Your task to perform on an android device: Open battery settings Image 0: 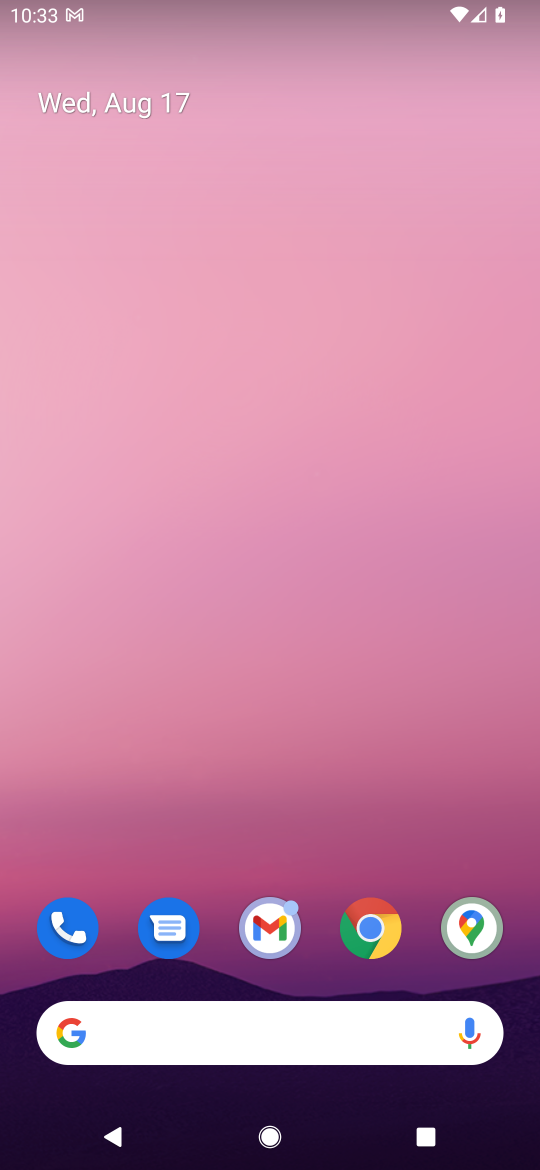
Step 0: click (314, 890)
Your task to perform on an android device: Open battery settings Image 1: 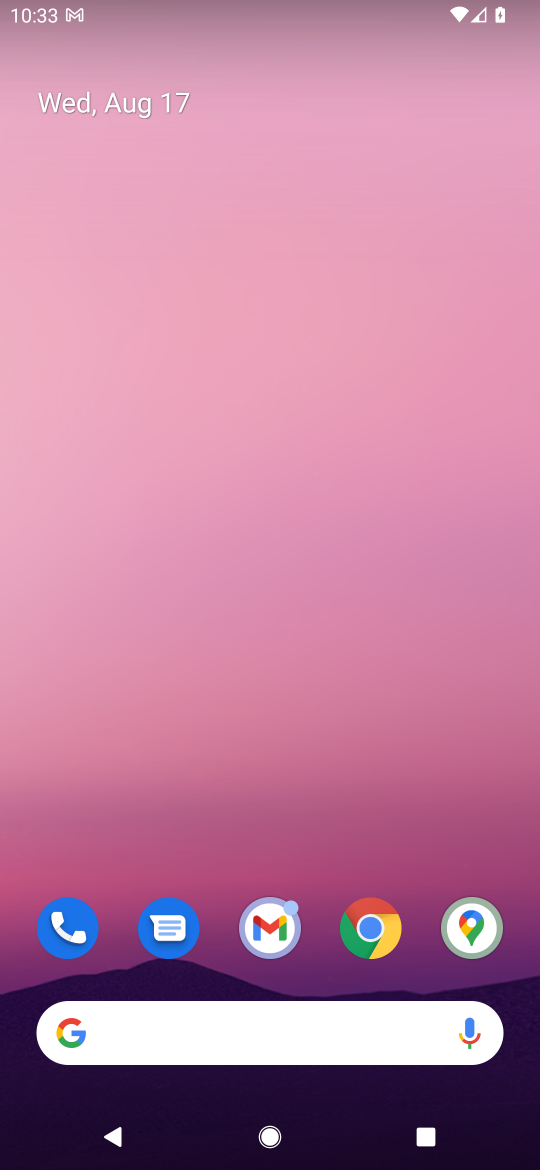
Step 1: drag from (305, 870) to (321, 337)
Your task to perform on an android device: Open battery settings Image 2: 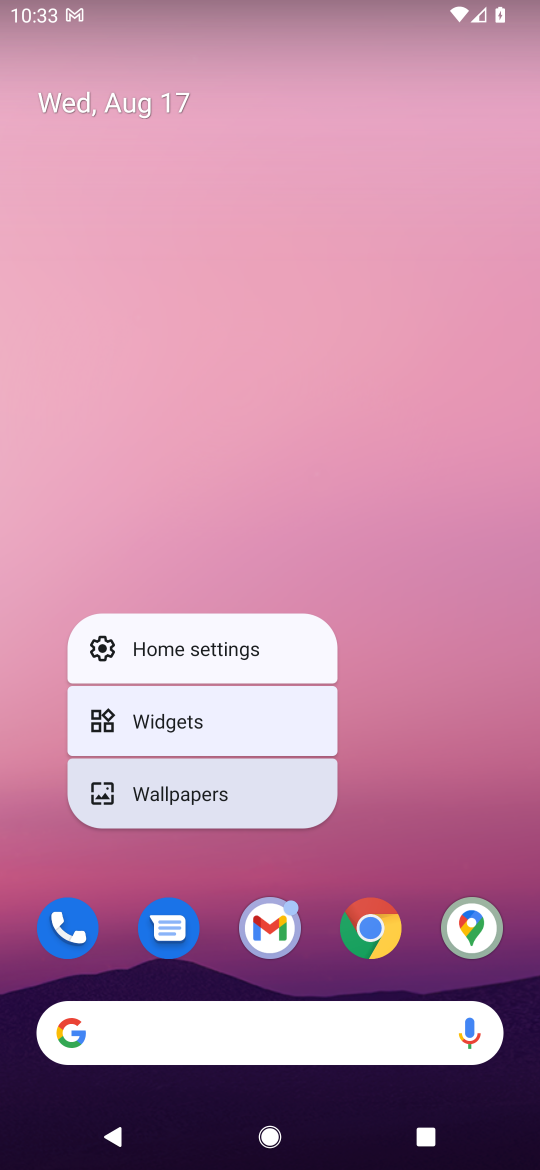
Step 2: click (431, 715)
Your task to perform on an android device: Open battery settings Image 3: 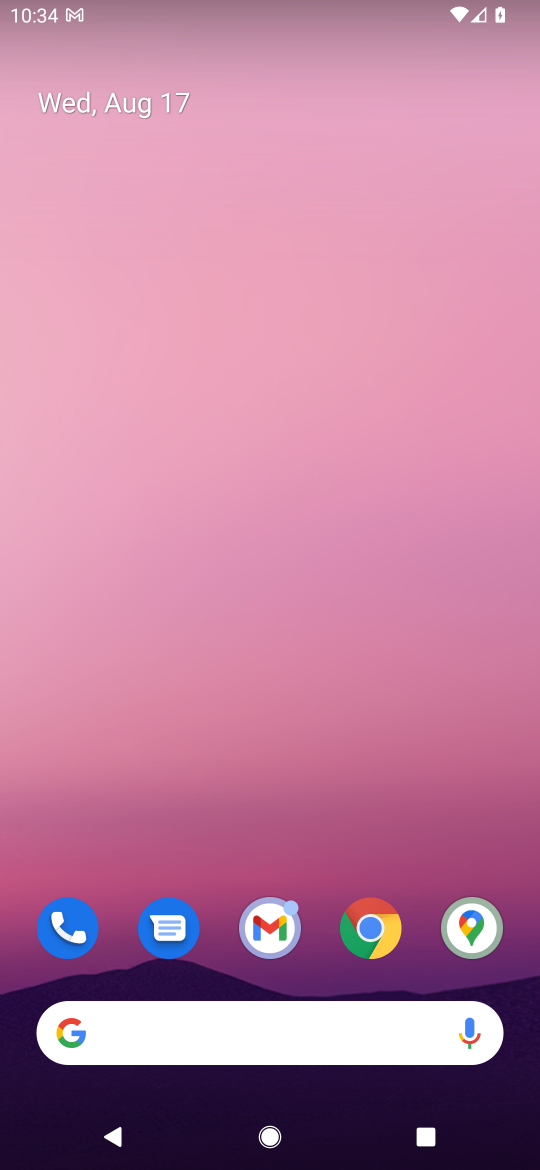
Step 3: drag from (452, 853) to (381, 281)
Your task to perform on an android device: Open battery settings Image 4: 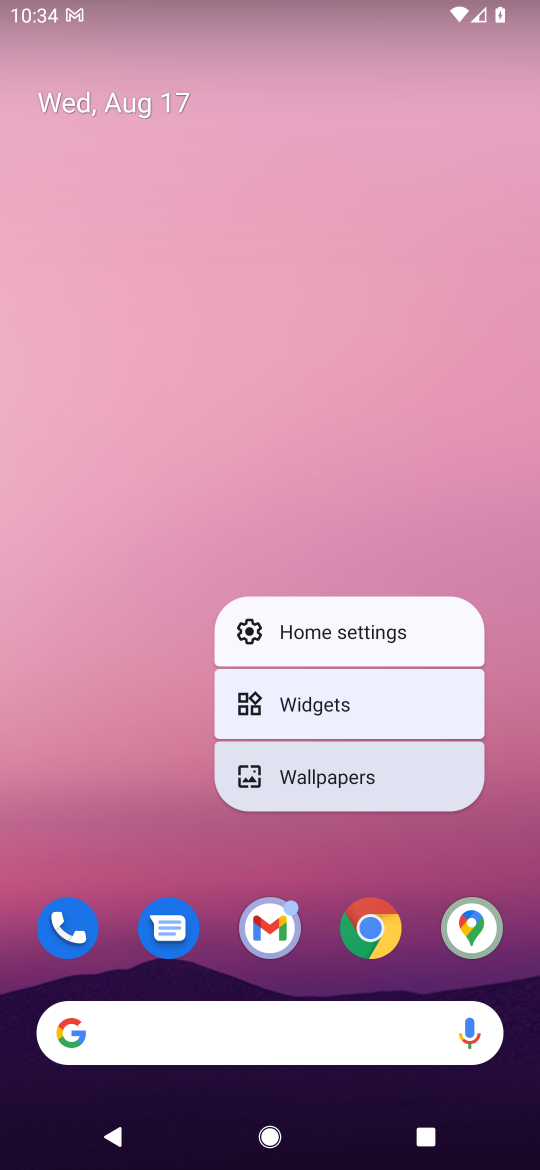
Step 4: click (419, 488)
Your task to perform on an android device: Open battery settings Image 5: 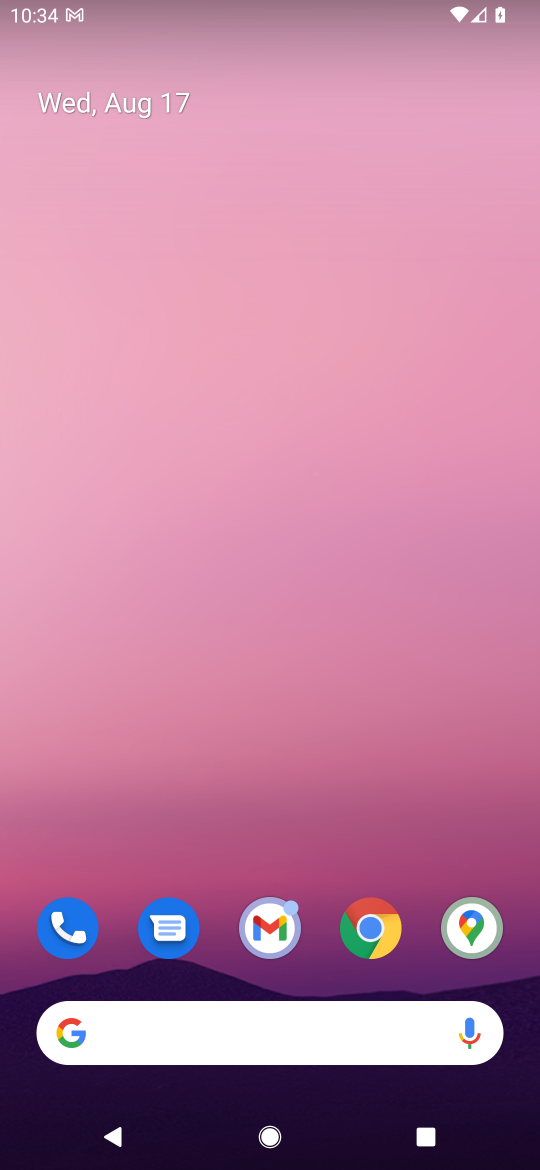
Step 5: drag from (427, 807) to (370, 89)
Your task to perform on an android device: Open battery settings Image 6: 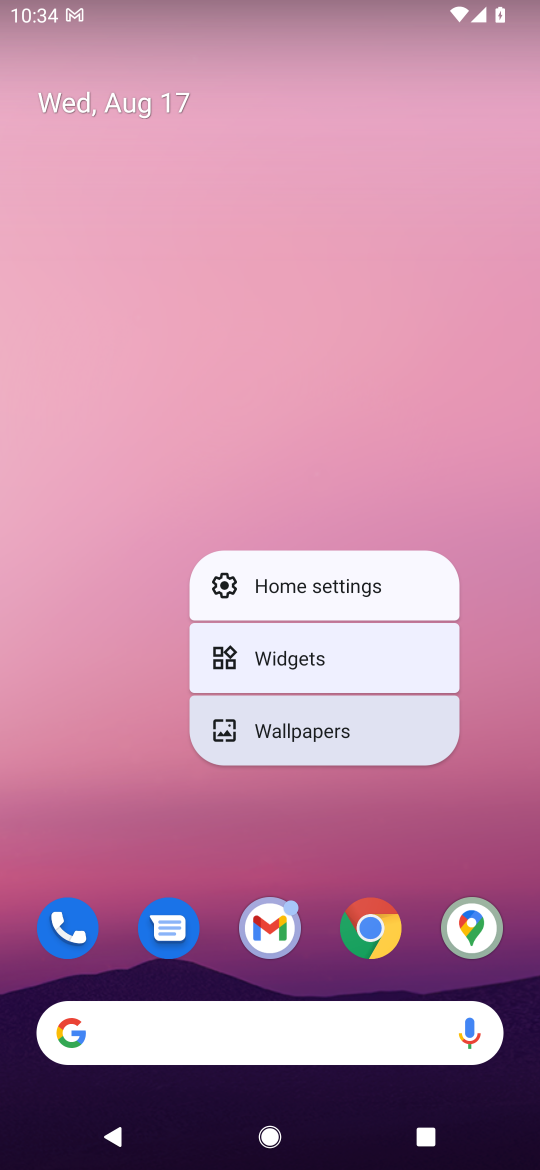
Step 6: click (425, 336)
Your task to perform on an android device: Open battery settings Image 7: 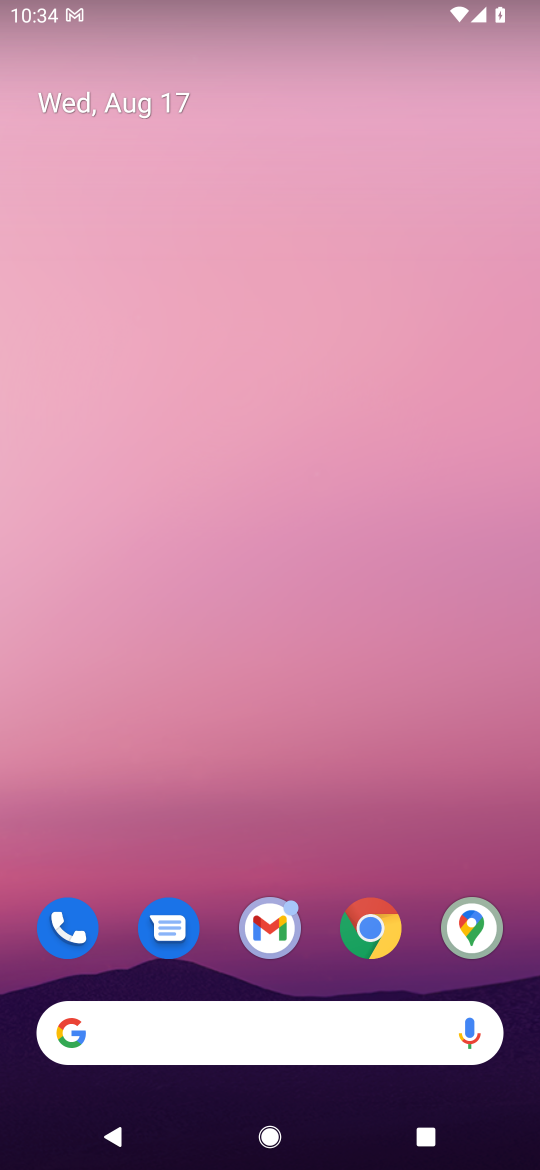
Step 7: drag from (323, 882) to (305, 317)
Your task to perform on an android device: Open battery settings Image 8: 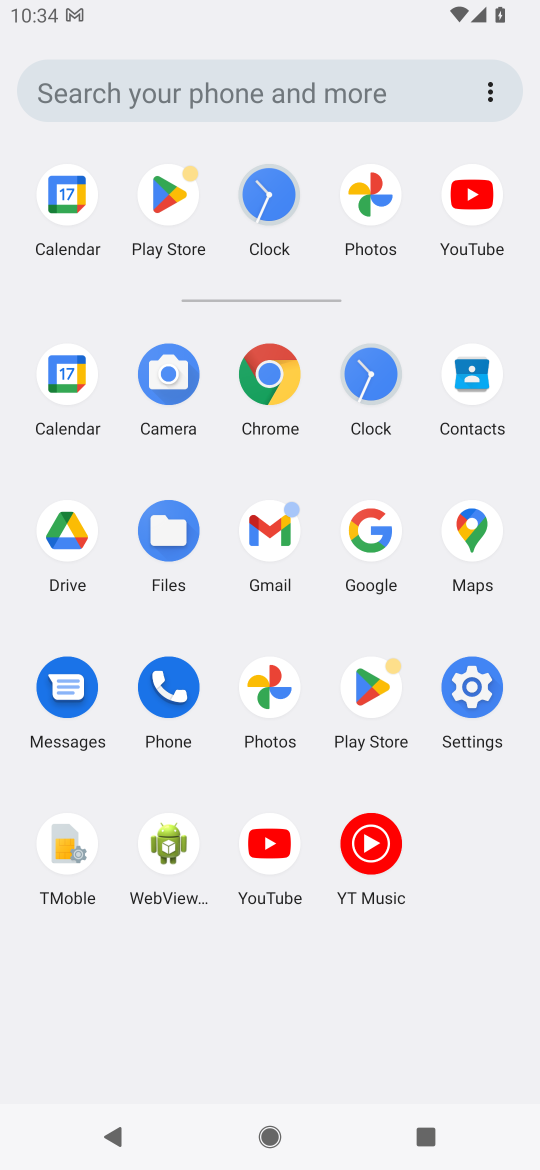
Step 8: click (472, 705)
Your task to perform on an android device: Open battery settings Image 9: 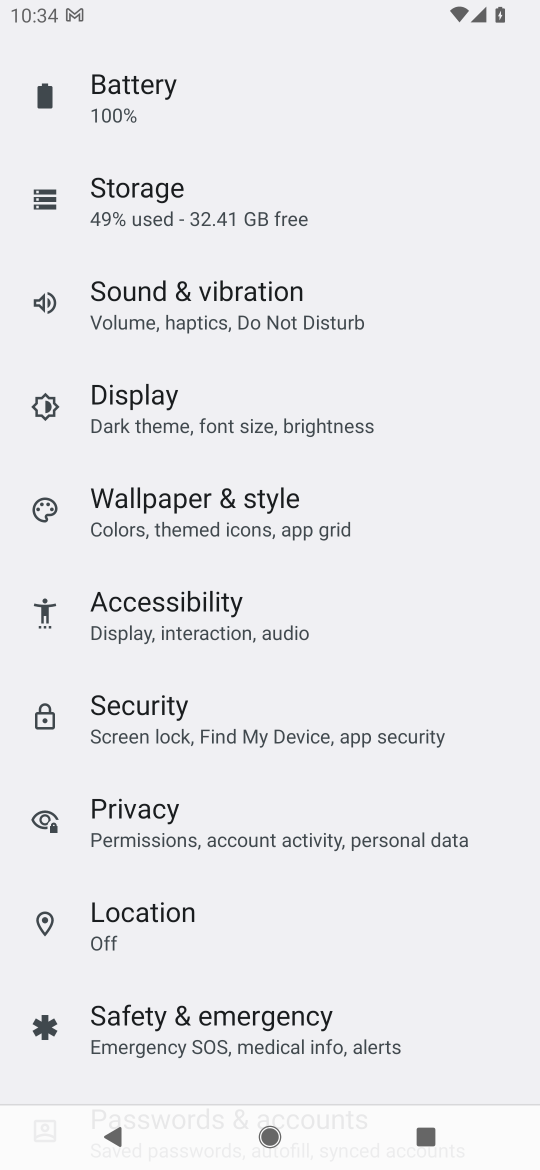
Step 9: click (149, 103)
Your task to perform on an android device: Open battery settings Image 10: 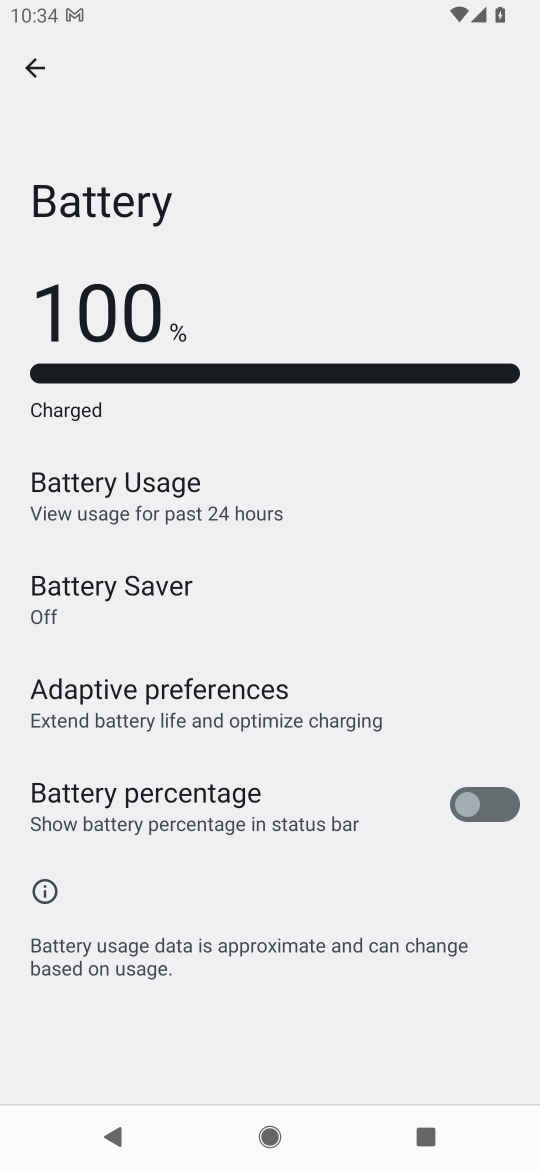
Step 10: task complete